Your task to perform on an android device: search for starred emails in the gmail app Image 0: 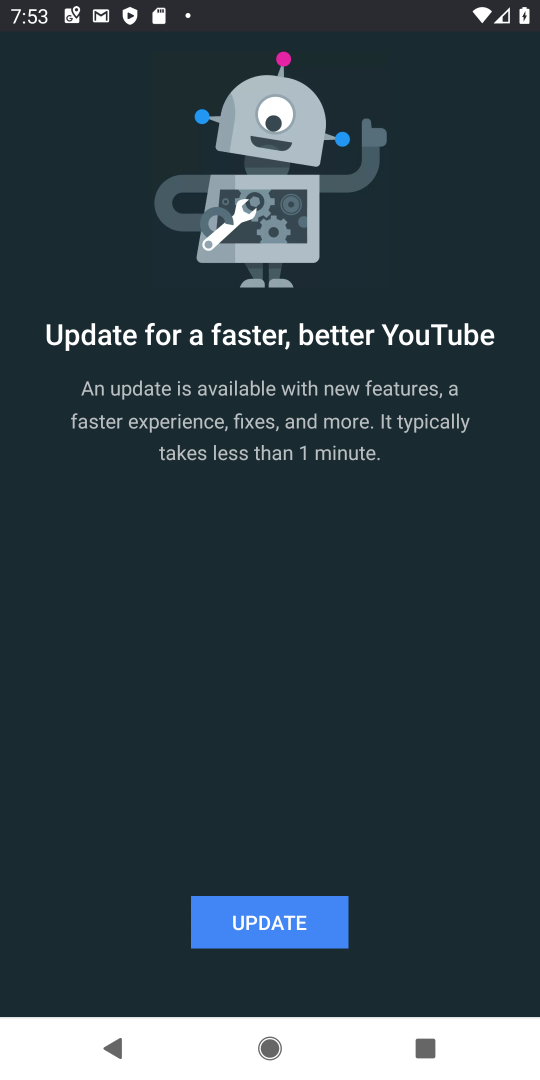
Step 0: press home button
Your task to perform on an android device: search for starred emails in the gmail app Image 1: 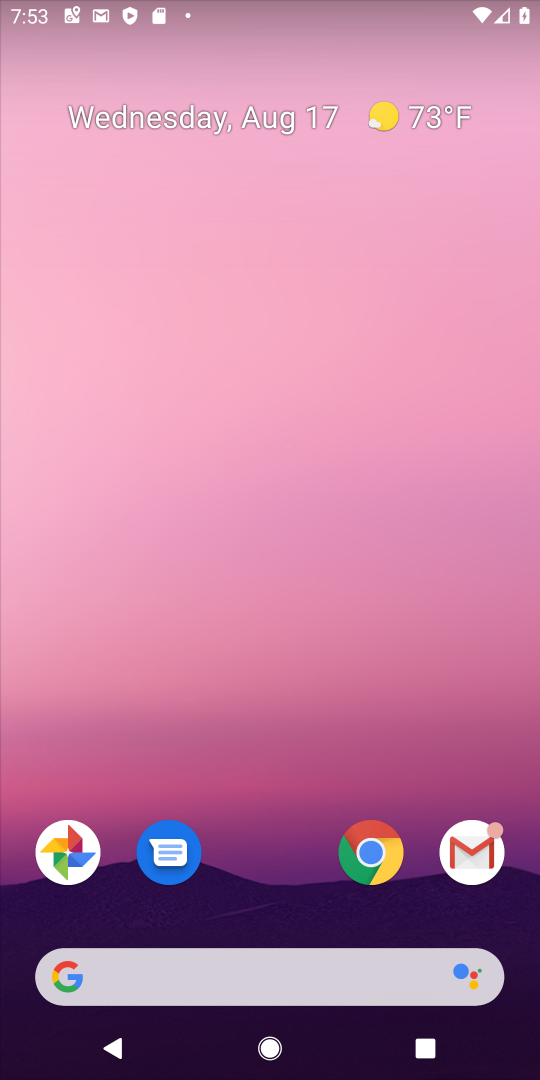
Step 1: click (461, 853)
Your task to perform on an android device: search for starred emails in the gmail app Image 2: 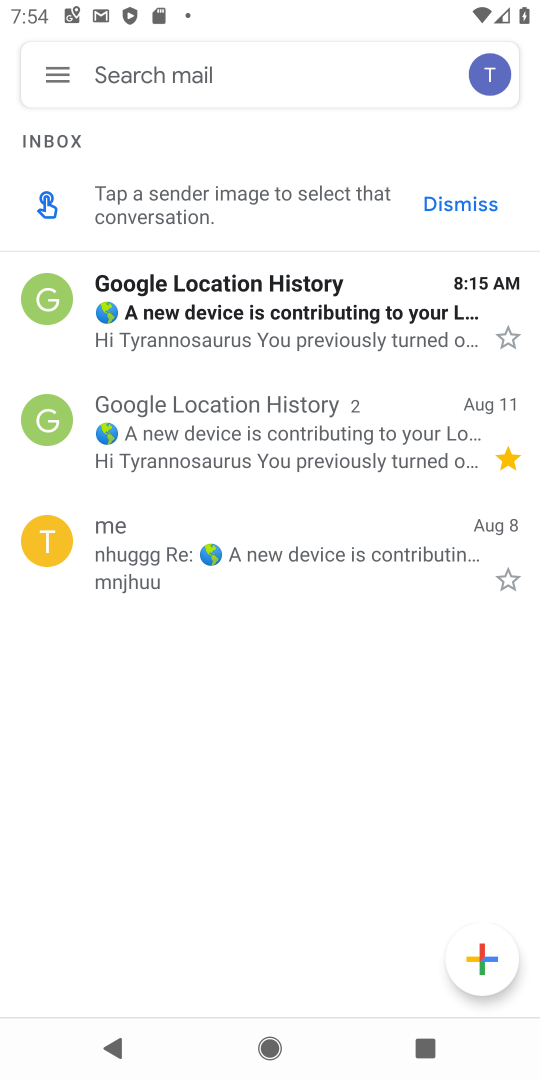
Step 2: click (54, 77)
Your task to perform on an android device: search for starred emails in the gmail app Image 3: 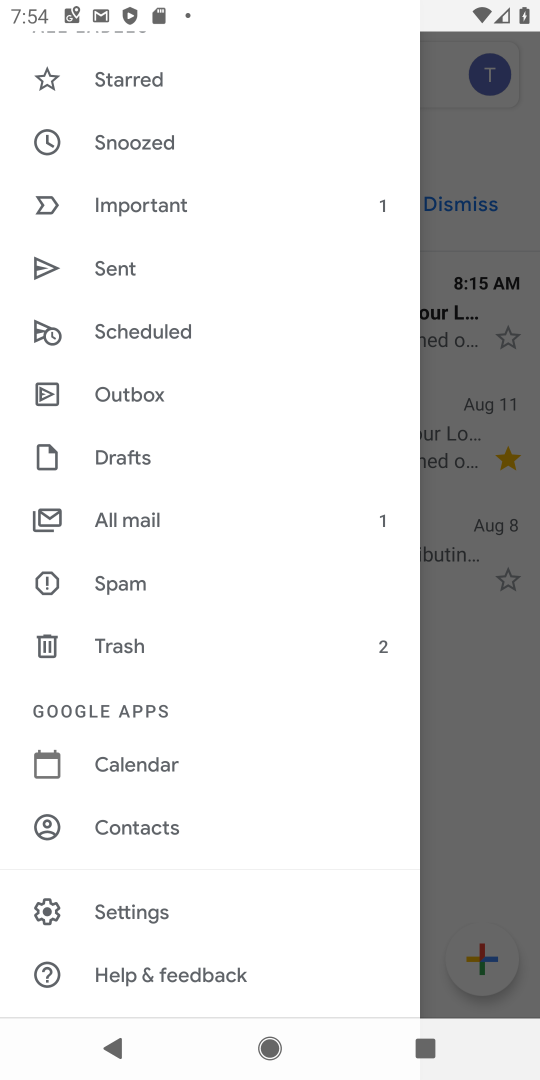
Step 3: click (127, 76)
Your task to perform on an android device: search for starred emails in the gmail app Image 4: 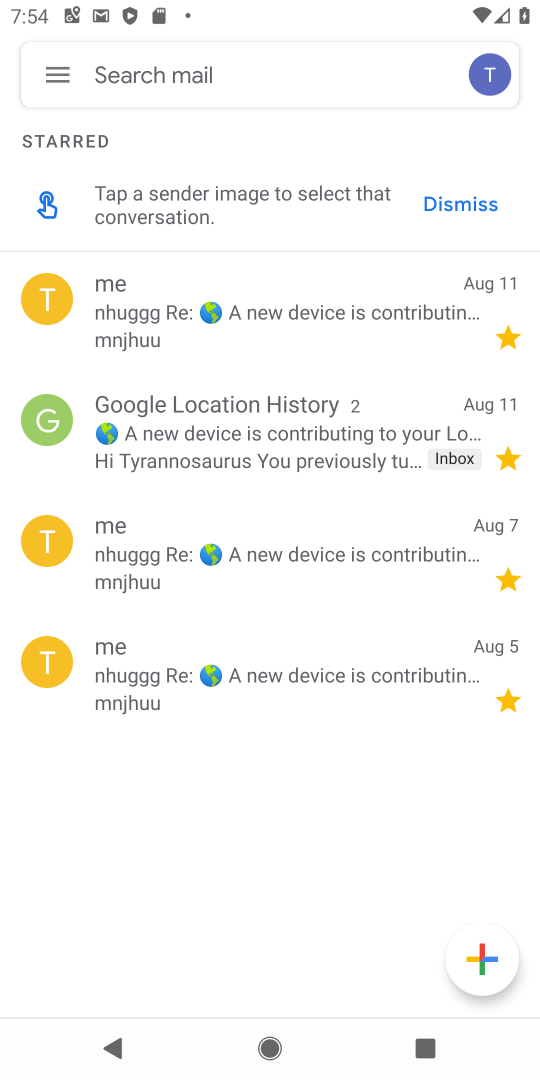
Step 4: task complete